Your task to perform on an android device: set the timer Image 0: 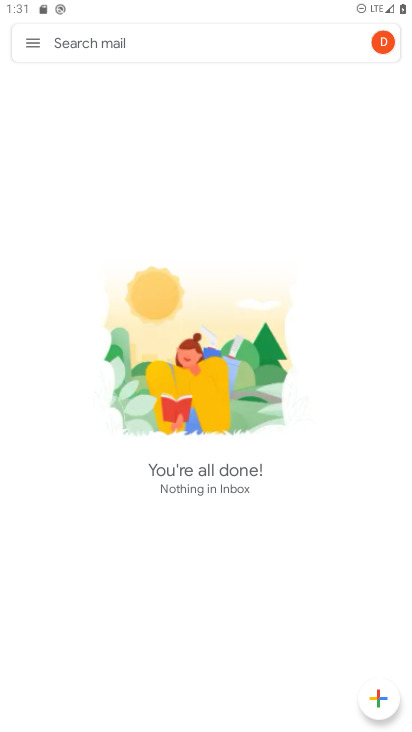
Step 0: click (310, 586)
Your task to perform on an android device: set the timer Image 1: 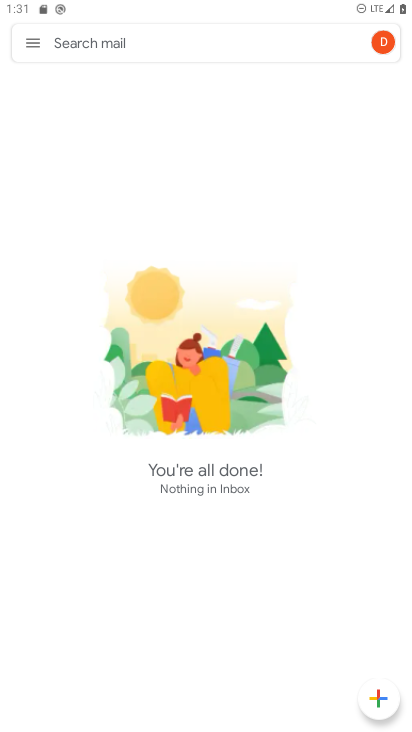
Step 1: press home button
Your task to perform on an android device: set the timer Image 2: 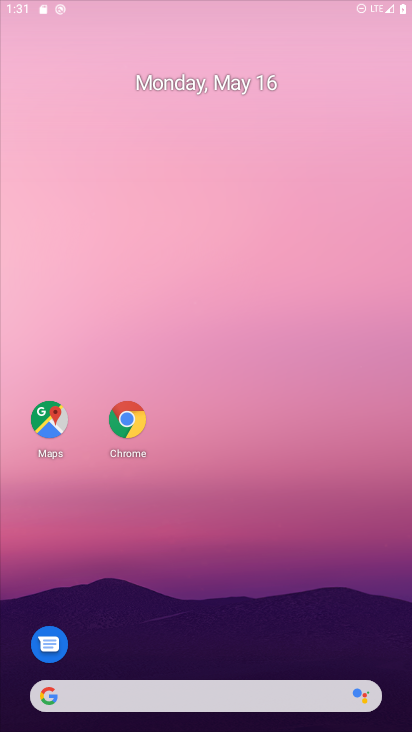
Step 2: drag from (243, 541) to (281, 127)
Your task to perform on an android device: set the timer Image 3: 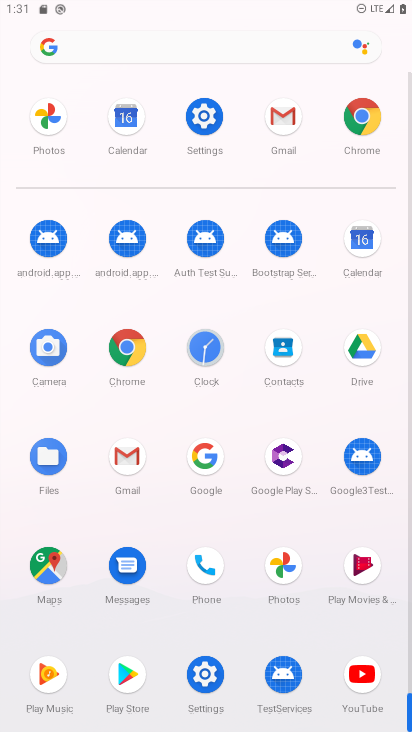
Step 3: click (195, 334)
Your task to perform on an android device: set the timer Image 4: 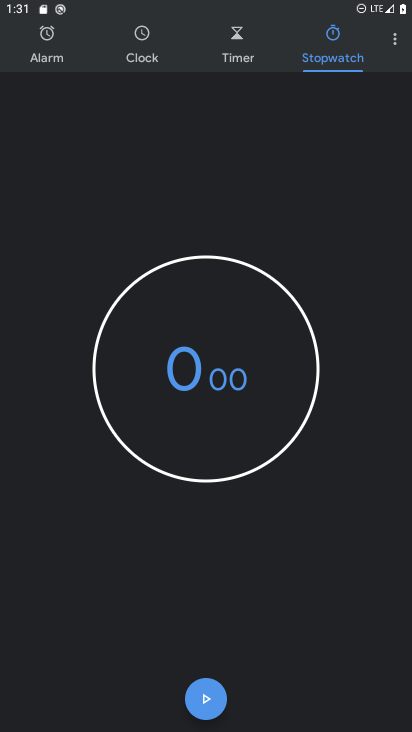
Step 4: click (239, 45)
Your task to perform on an android device: set the timer Image 5: 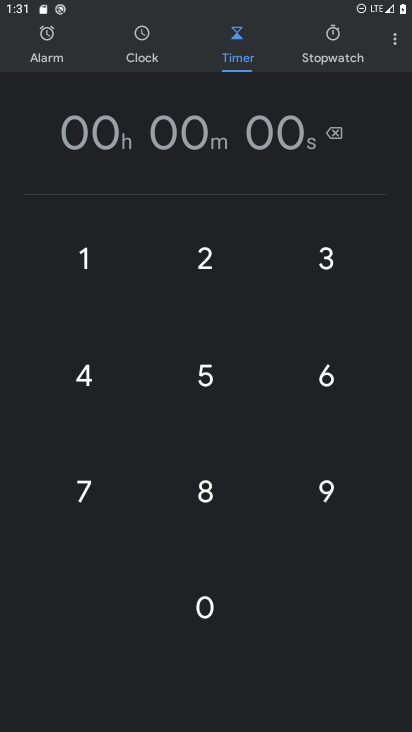
Step 5: click (187, 254)
Your task to perform on an android device: set the timer Image 6: 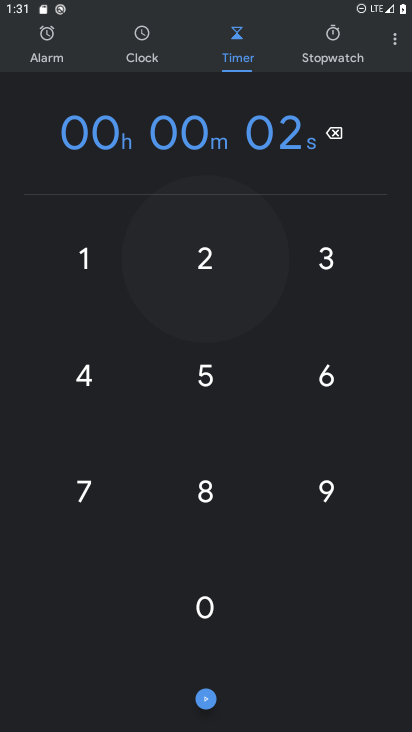
Step 6: click (349, 270)
Your task to perform on an android device: set the timer Image 7: 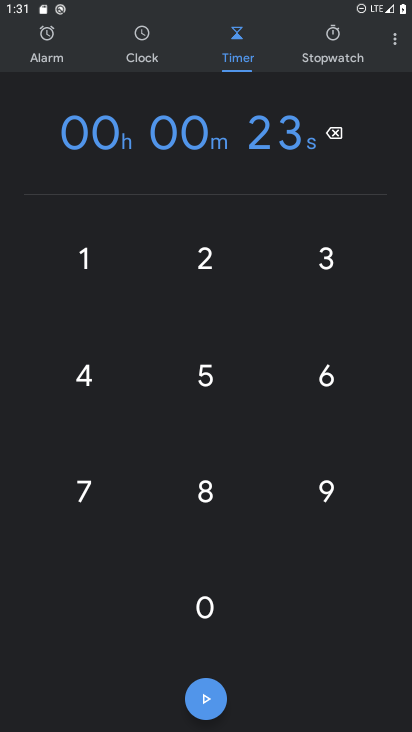
Step 7: click (211, 693)
Your task to perform on an android device: set the timer Image 8: 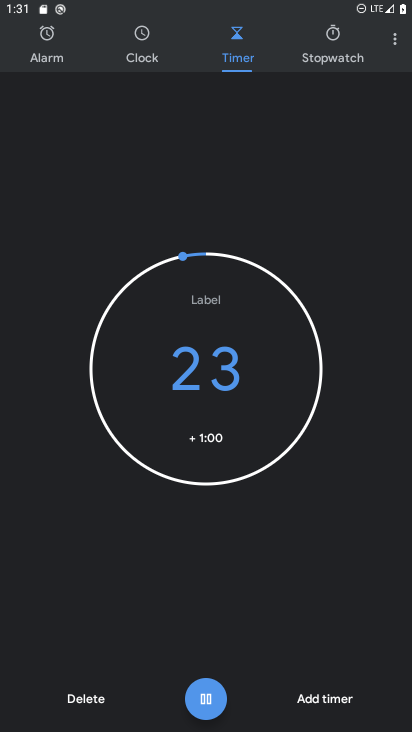
Step 8: task complete